Your task to perform on an android device: change the clock style Image 0: 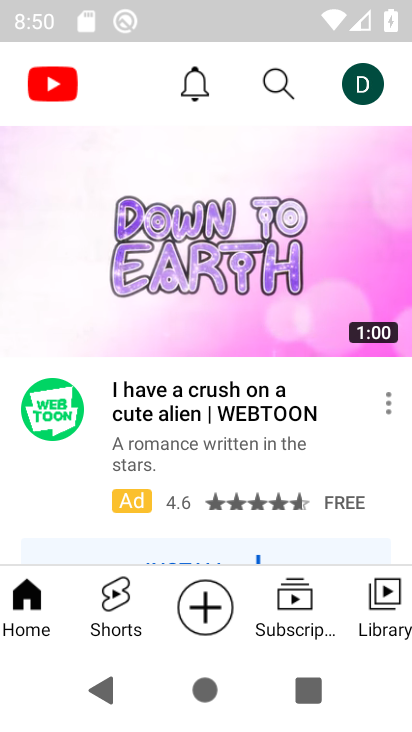
Step 0: press home button
Your task to perform on an android device: change the clock style Image 1: 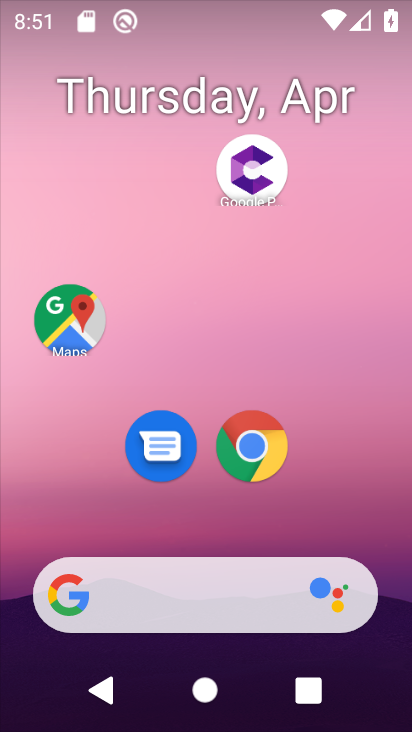
Step 1: drag from (201, 509) to (220, 51)
Your task to perform on an android device: change the clock style Image 2: 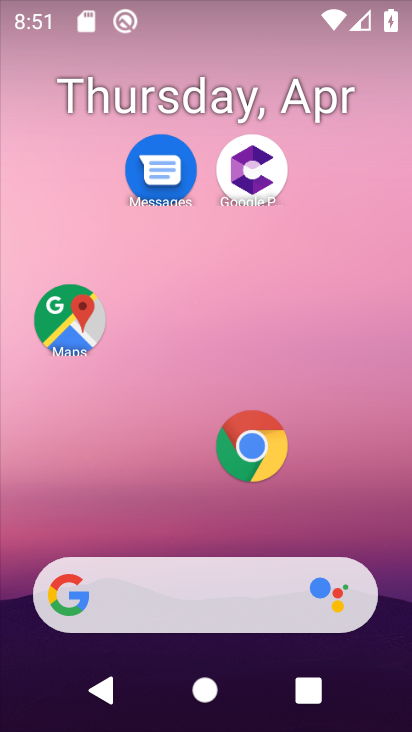
Step 2: drag from (195, 477) to (228, 10)
Your task to perform on an android device: change the clock style Image 3: 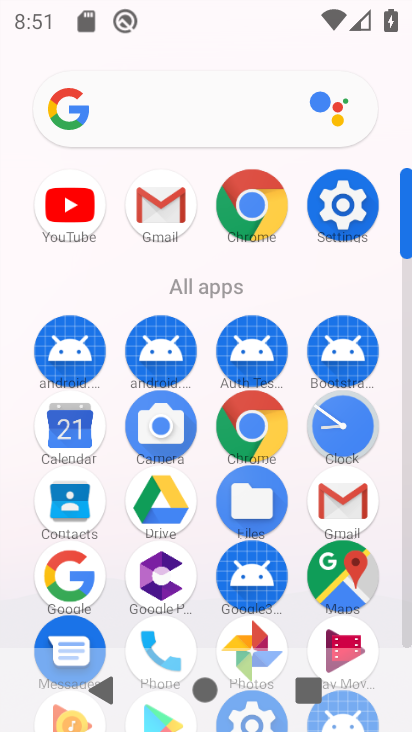
Step 3: click (339, 446)
Your task to perform on an android device: change the clock style Image 4: 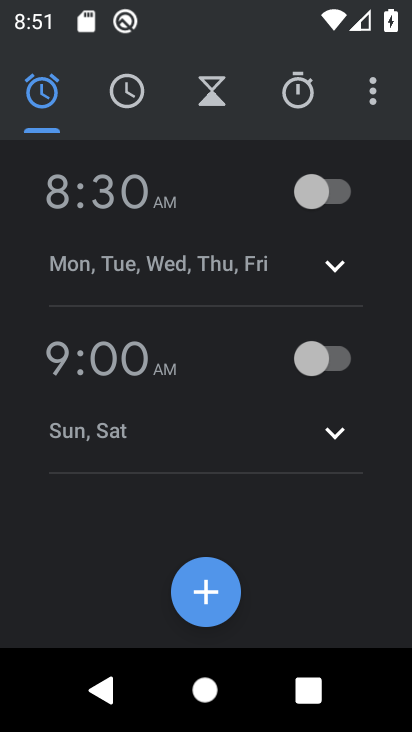
Step 4: click (371, 103)
Your task to perform on an android device: change the clock style Image 5: 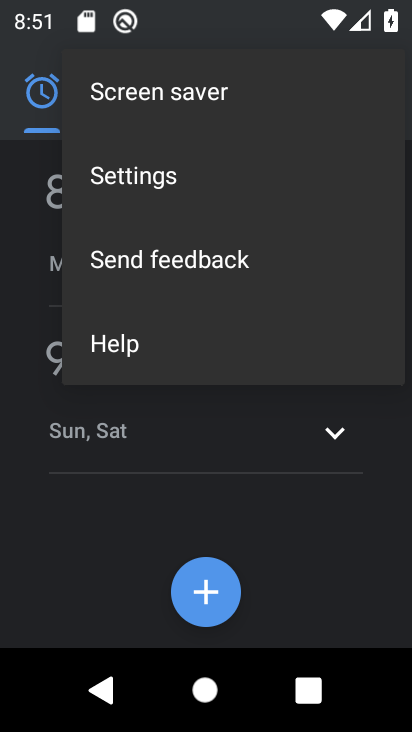
Step 5: click (165, 189)
Your task to perform on an android device: change the clock style Image 6: 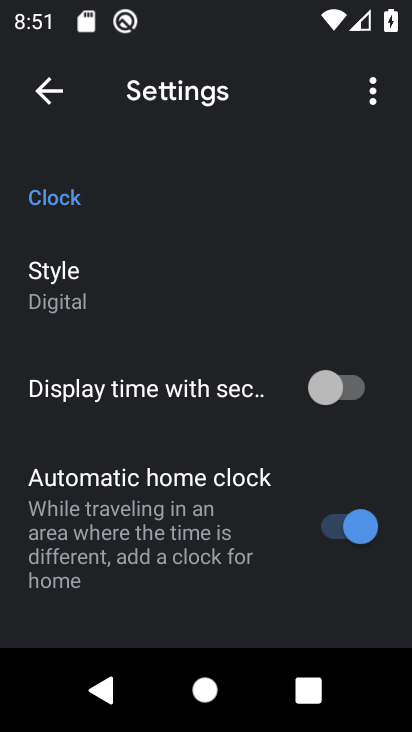
Step 6: click (70, 284)
Your task to perform on an android device: change the clock style Image 7: 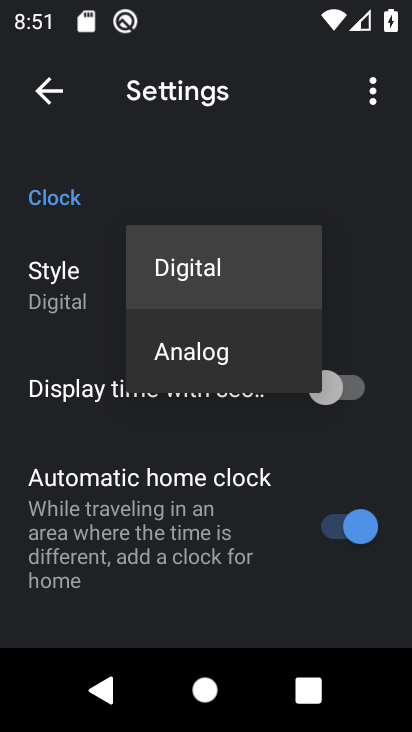
Step 7: click (193, 347)
Your task to perform on an android device: change the clock style Image 8: 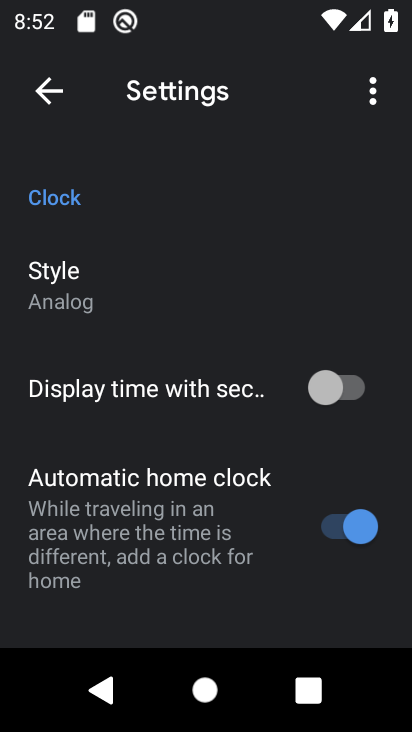
Step 8: task complete